Your task to perform on an android device: Check the weather Image 0: 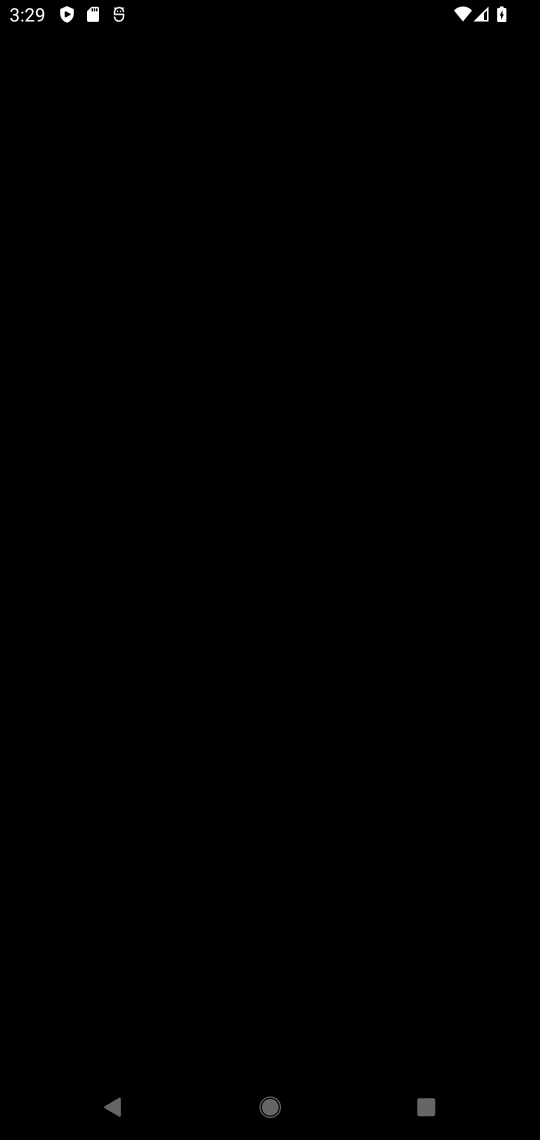
Step 0: press home button
Your task to perform on an android device: Check the weather Image 1: 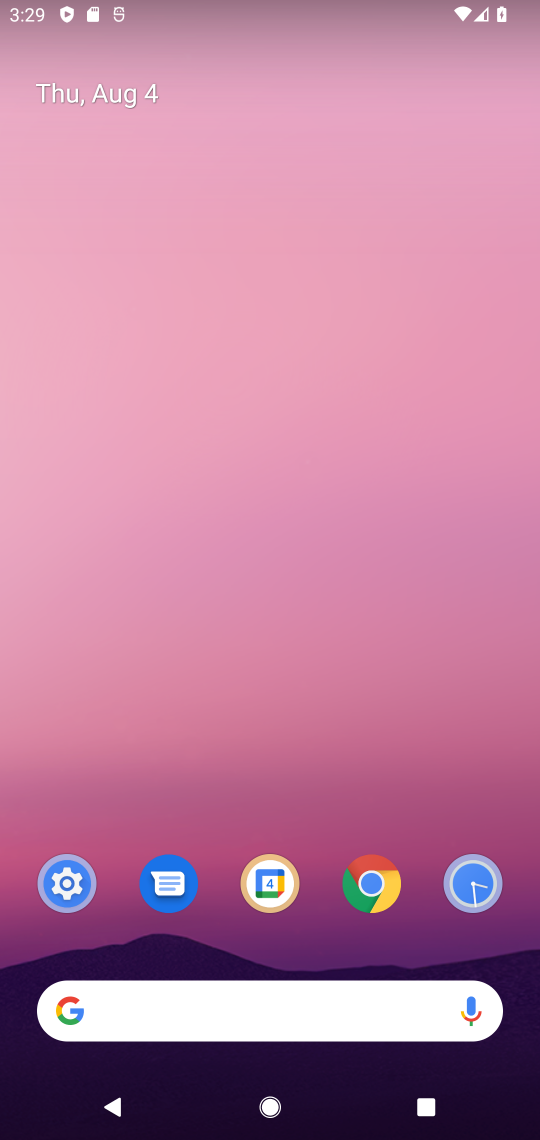
Step 1: drag from (397, 822) to (212, 42)
Your task to perform on an android device: Check the weather Image 2: 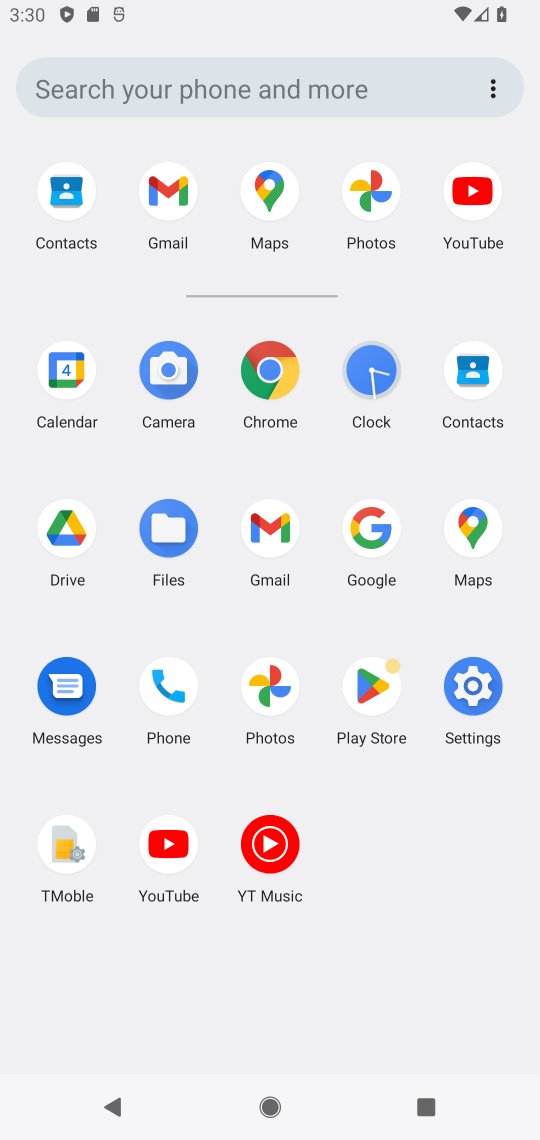
Step 2: click (379, 544)
Your task to perform on an android device: Check the weather Image 3: 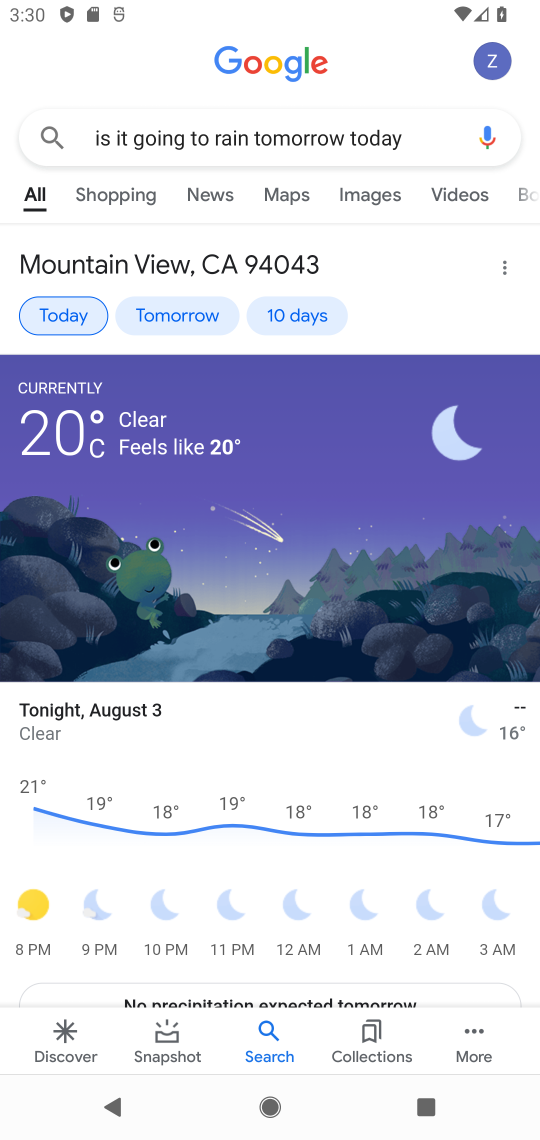
Step 3: press back button
Your task to perform on an android device: Check the weather Image 4: 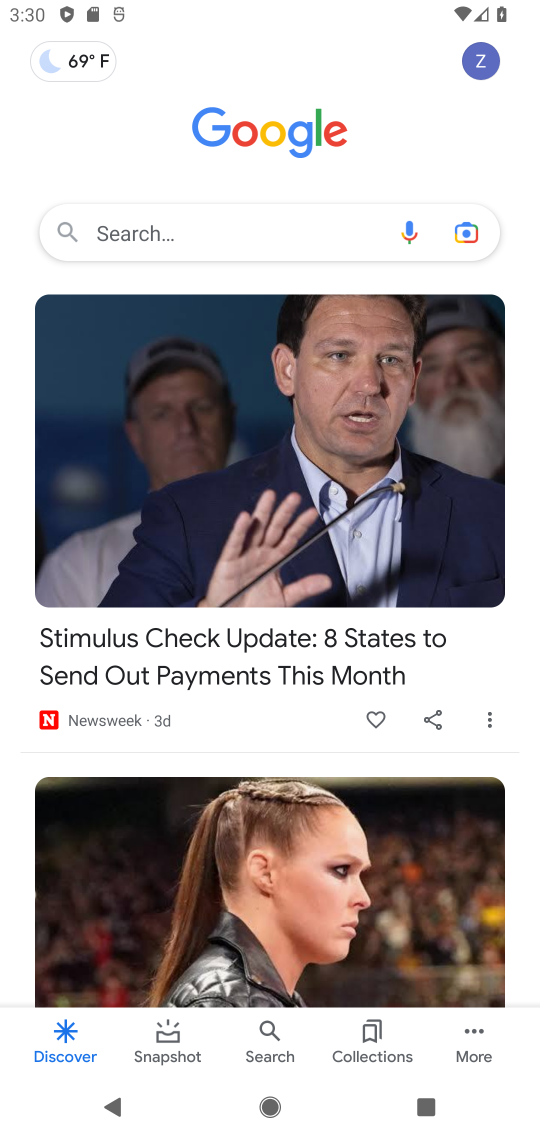
Step 4: click (120, 211)
Your task to perform on an android device: Check the weather Image 5: 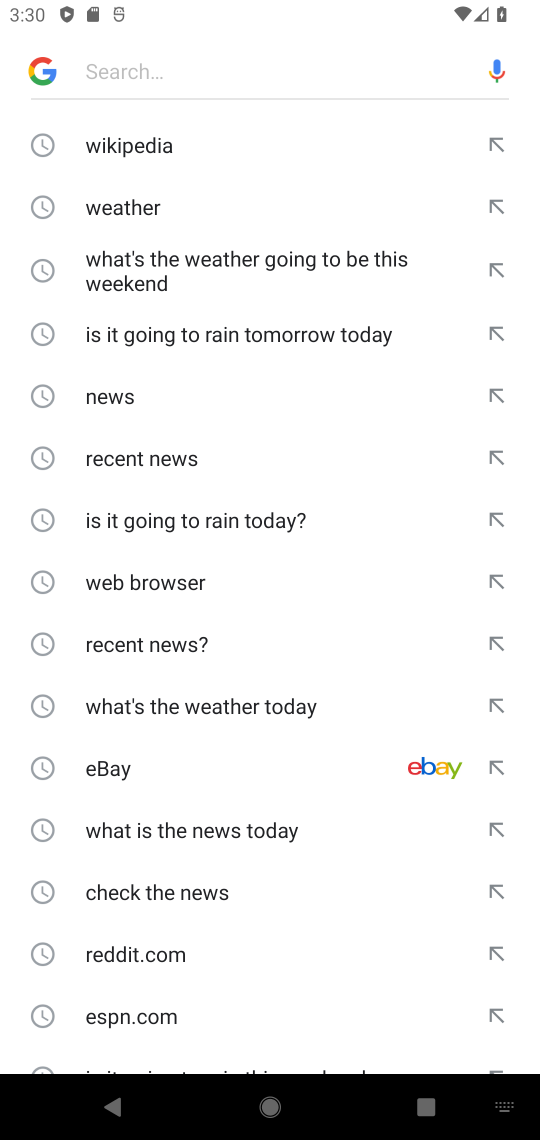
Step 5: click (72, 207)
Your task to perform on an android device: Check the weather Image 6: 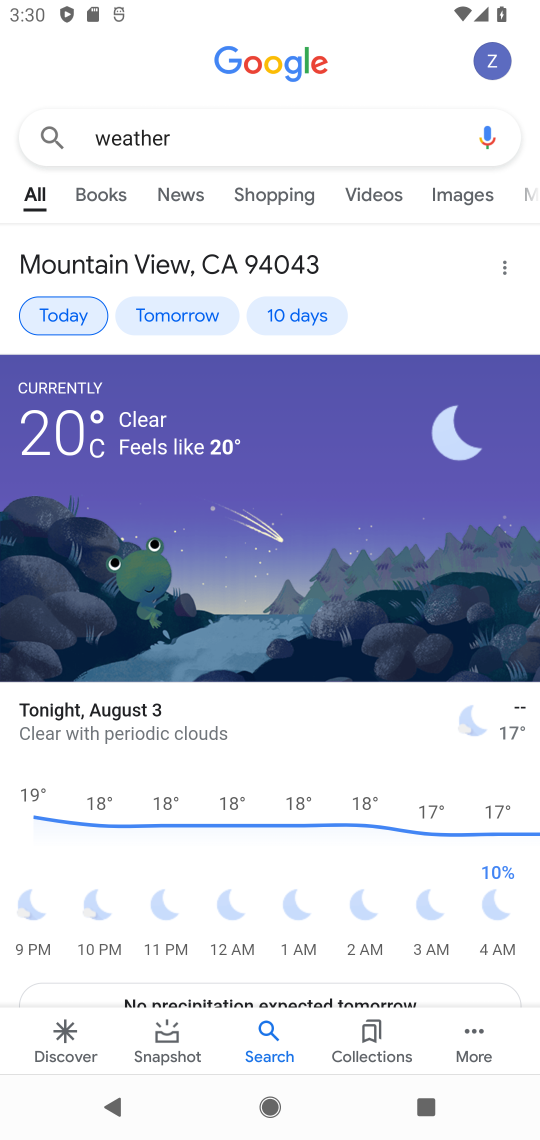
Step 6: task complete